Your task to perform on an android device: set the timer Image 0: 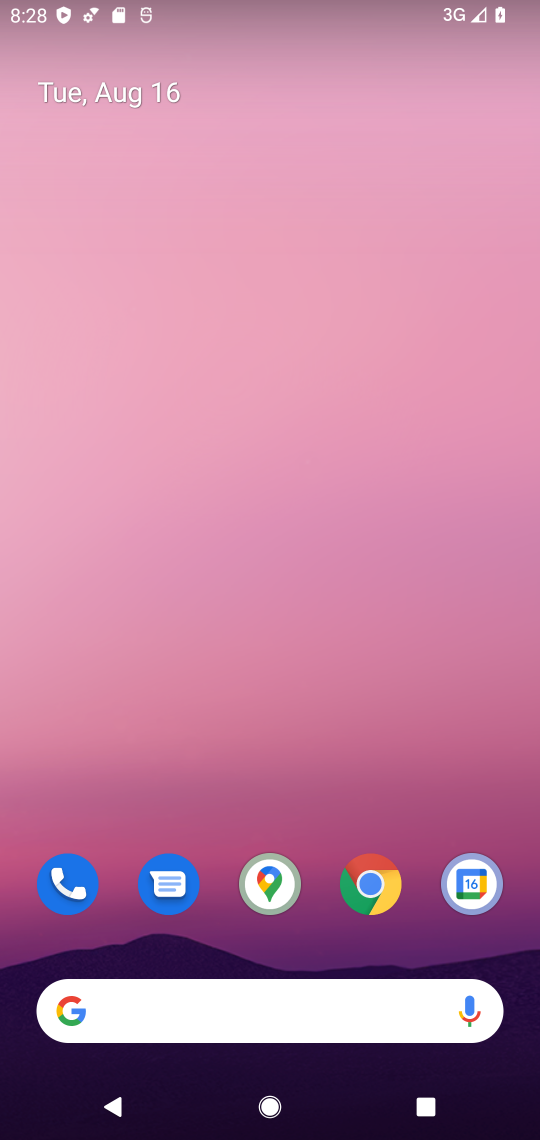
Step 0: drag from (433, 954) to (379, 210)
Your task to perform on an android device: set the timer Image 1: 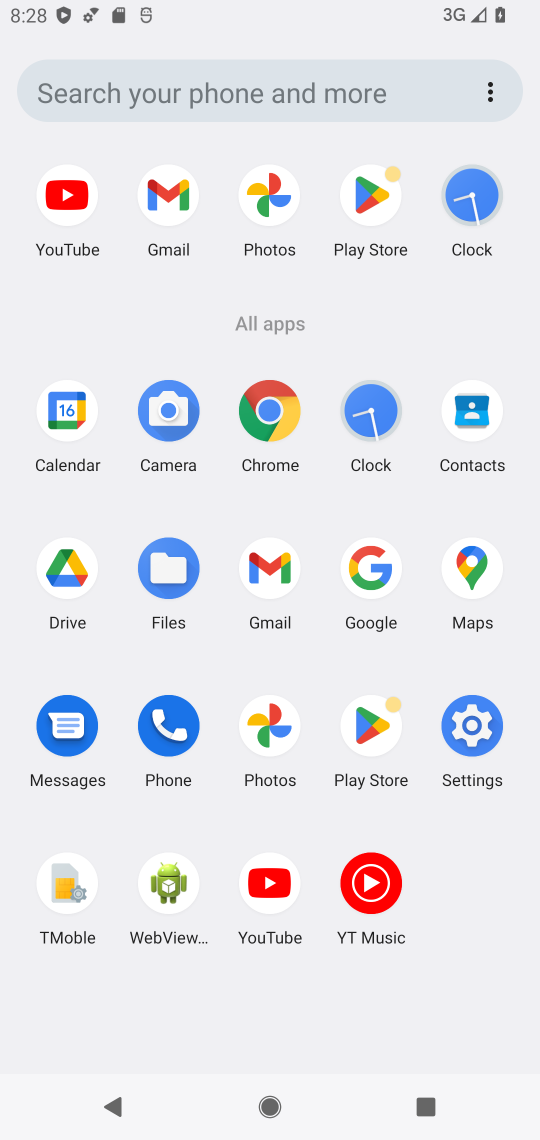
Step 1: click (369, 411)
Your task to perform on an android device: set the timer Image 2: 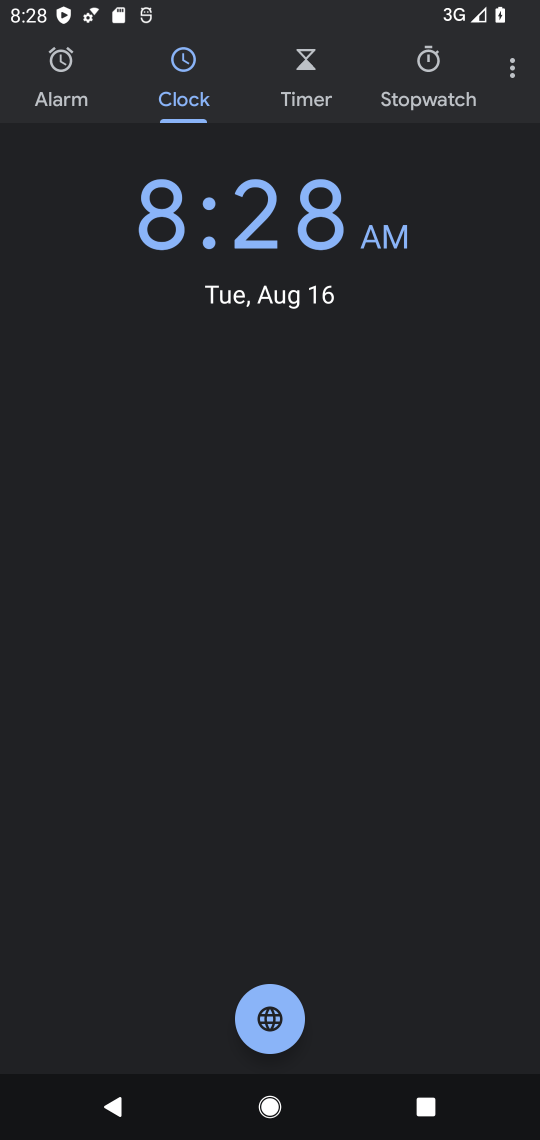
Step 2: click (302, 78)
Your task to perform on an android device: set the timer Image 3: 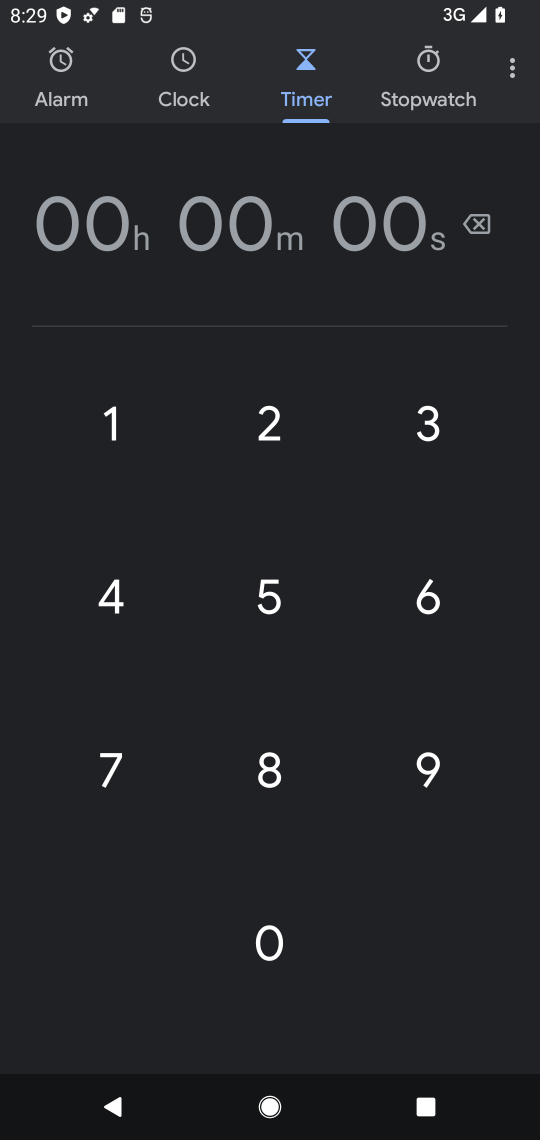
Step 3: click (111, 432)
Your task to perform on an android device: set the timer Image 4: 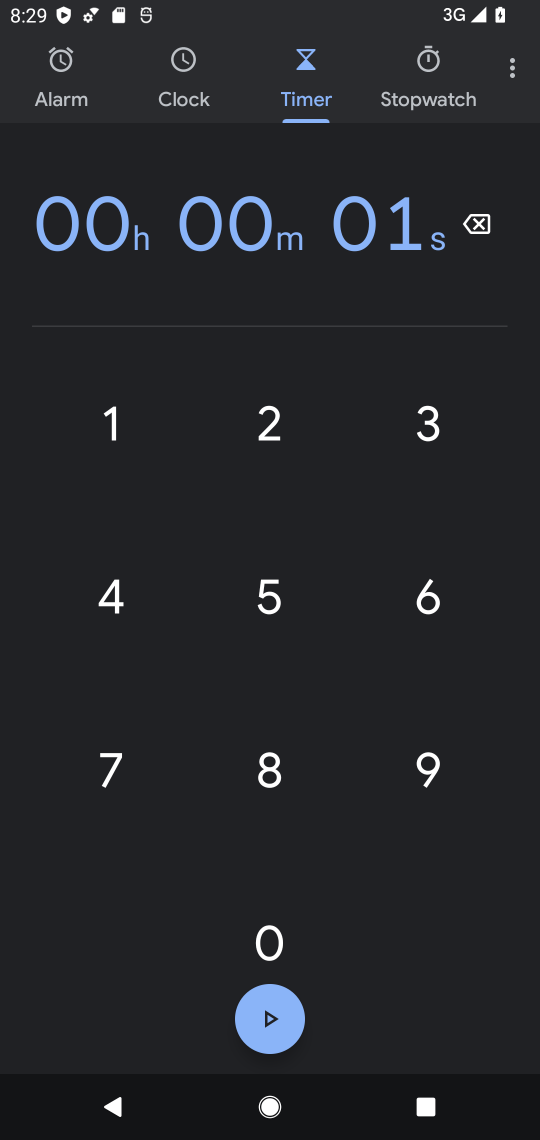
Step 4: click (421, 432)
Your task to perform on an android device: set the timer Image 5: 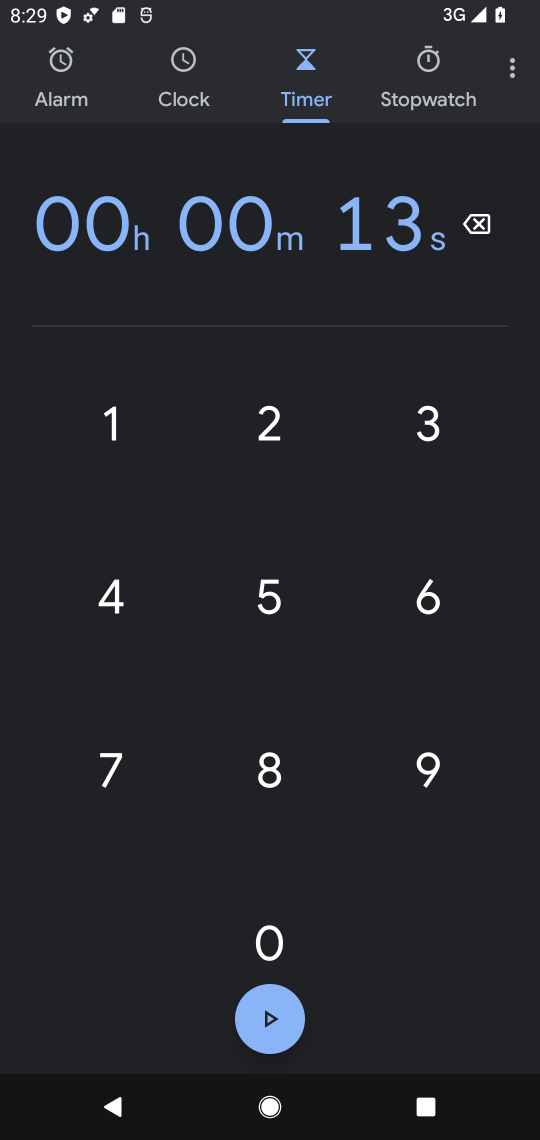
Step 5: click (266, 923)
Your task to perform on an android device: set the timer Image 6: 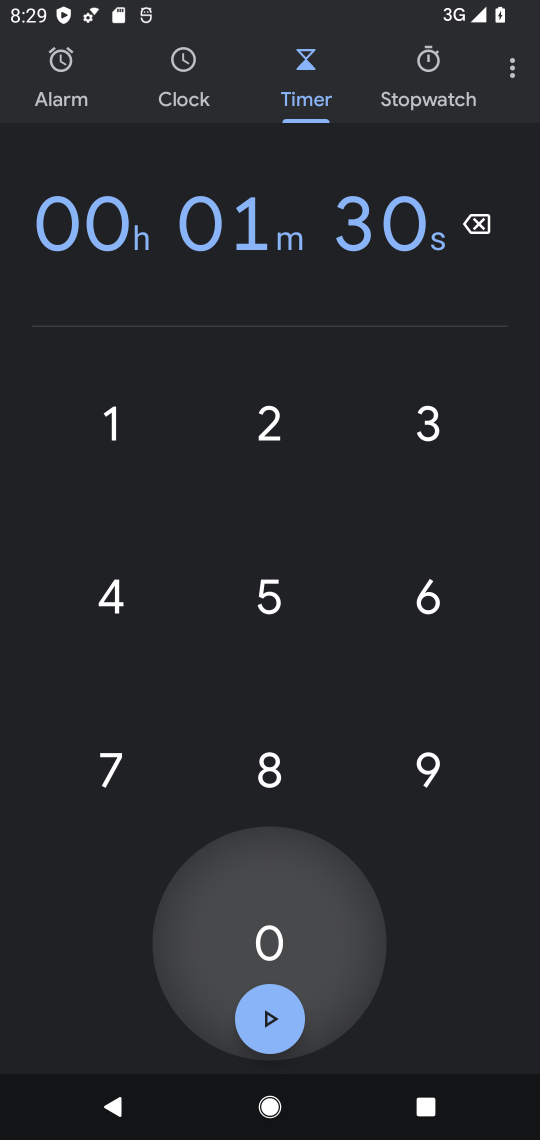
Step 6: click (266, 923)
Your task to perform on an android device: set the timer Image 7: 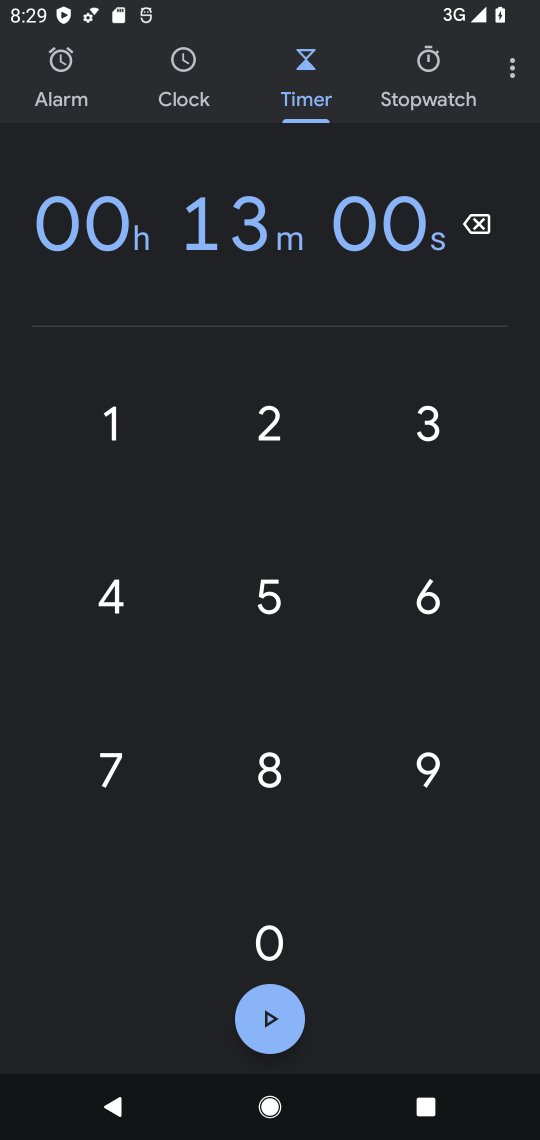
Step 7: click (266, 923)
Your task to perform on an android device: set the timer Image 8: 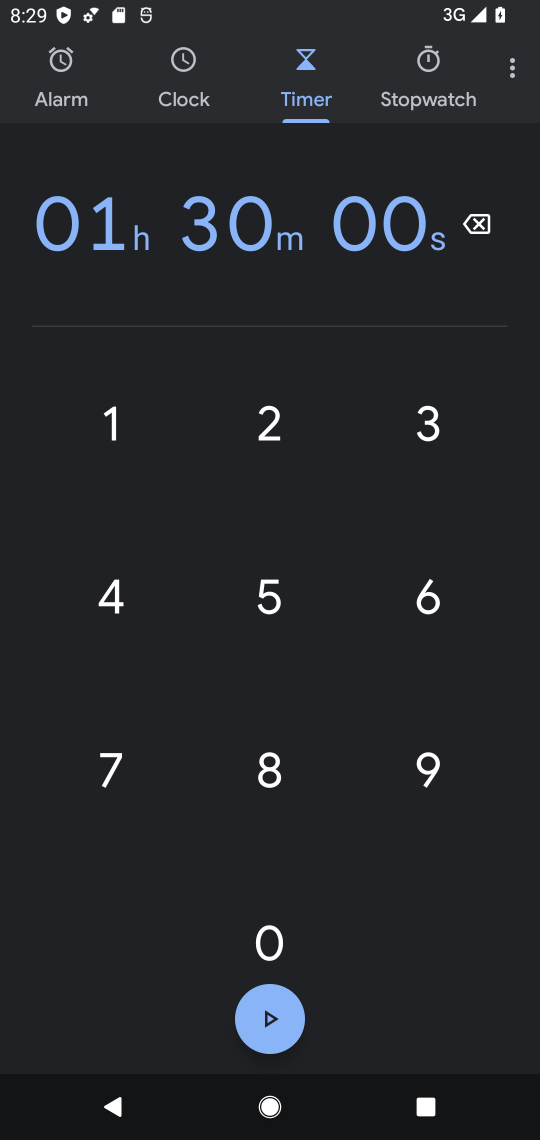
Step 8: task complete